Your task to perform on an android device: Open Google Maps and go to "Timeline" Image 0: 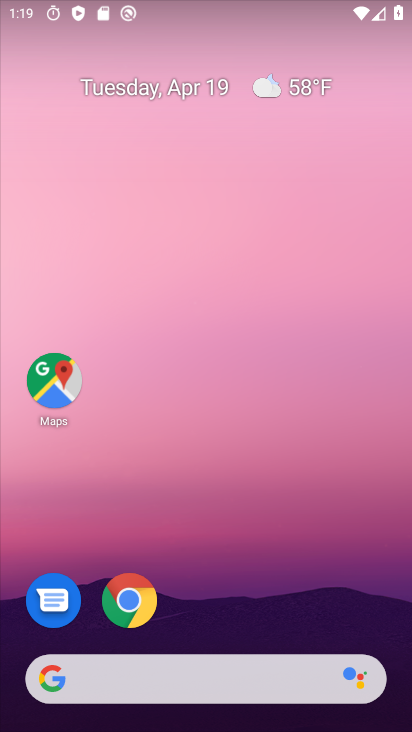
Step 0: drag from (265, 697) to (393, 234)
Your task to perform on an android device: Open Google Maps and go to "Timeline" Image 1: 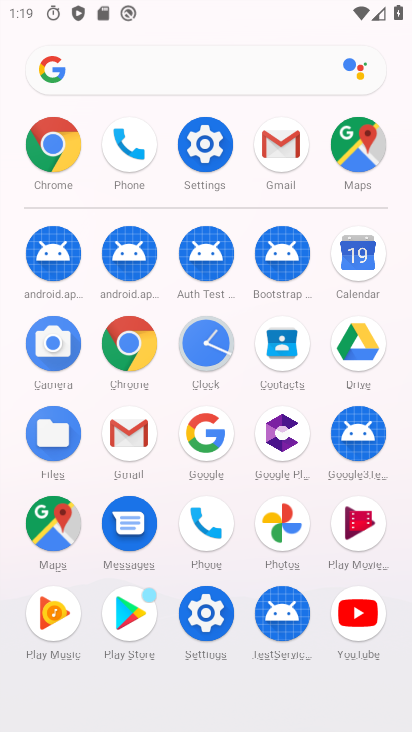
Step 1: click (328, 156)
Your task to perform on an android device: Open Google Maps and go to "Timeline" Image 2: 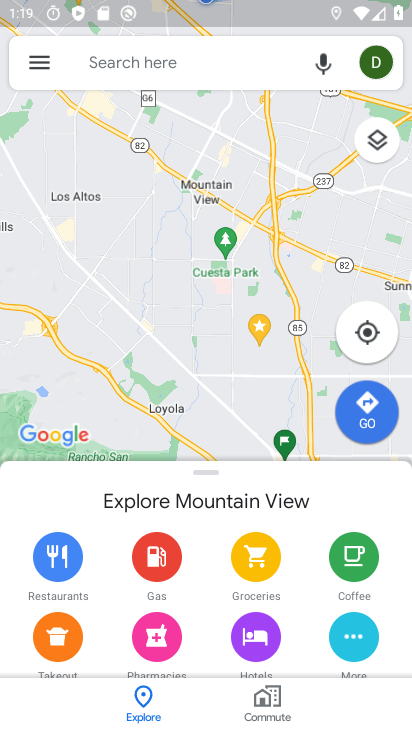
Step 2: click (27, 59)
Your task to perform on an android device: Open Google Maps and go to "Timeline" Image 3: 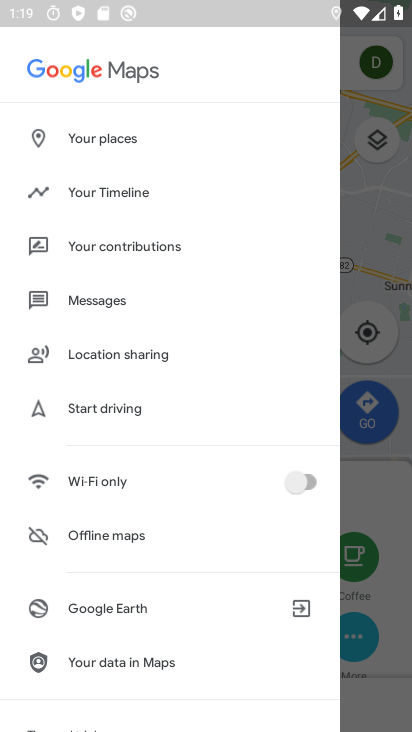
Step 3: click (77, 202)
Your task to perform on an android device: Open Google Maps and go to "Timeline" Image 4: 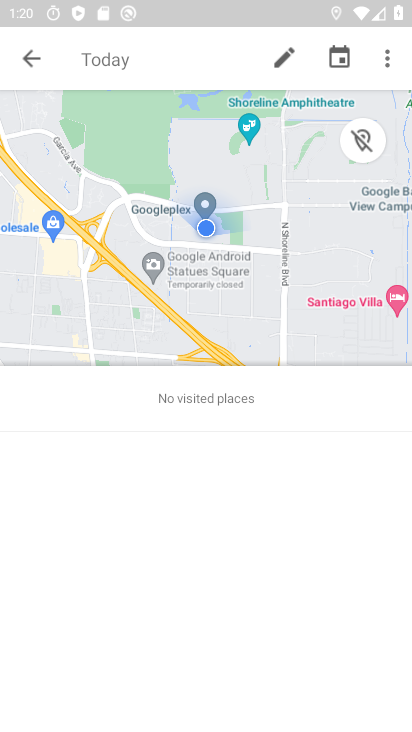
Step 4: task complete